Your task to perform on an android device: What is the news today? Image 0: 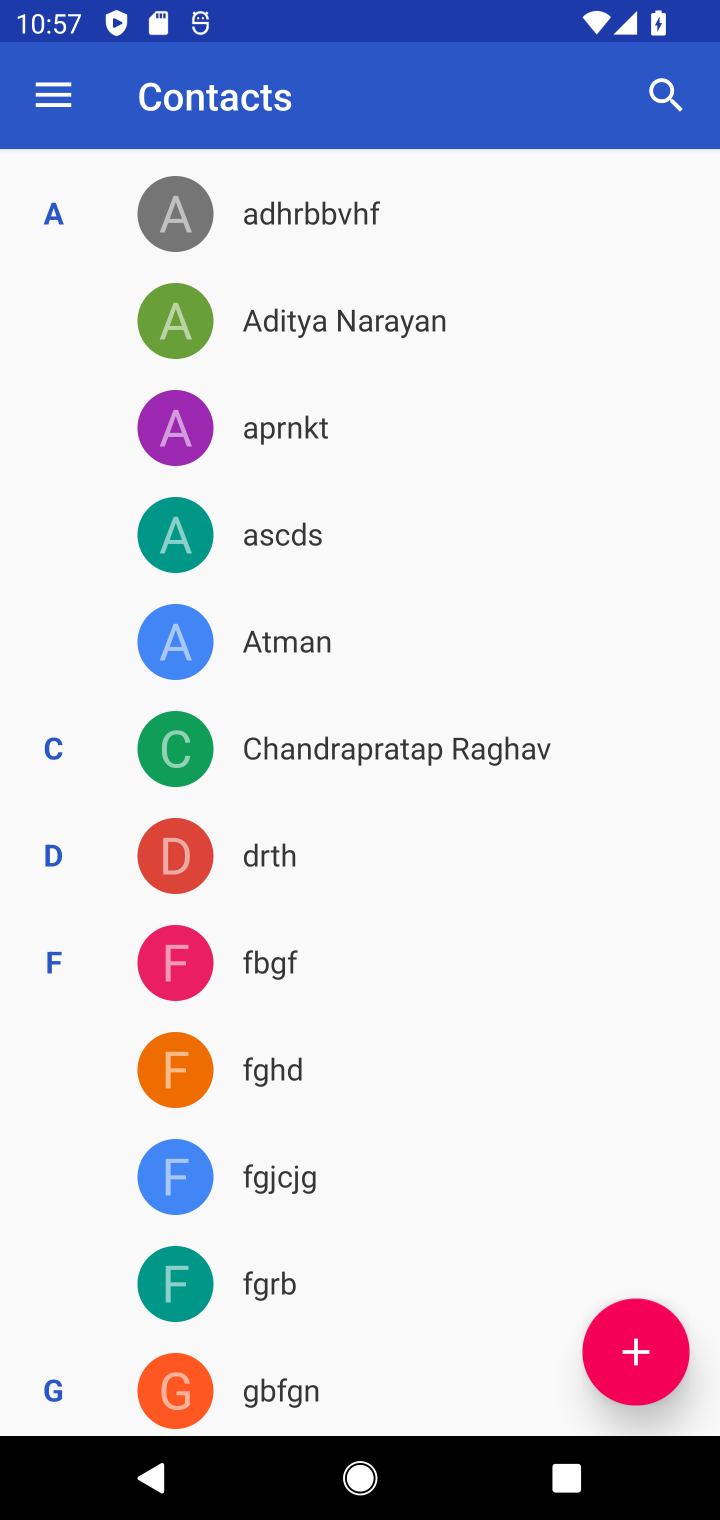
Step 0: press home button
Your task to perform on an android device: What is the news today? Image 1: 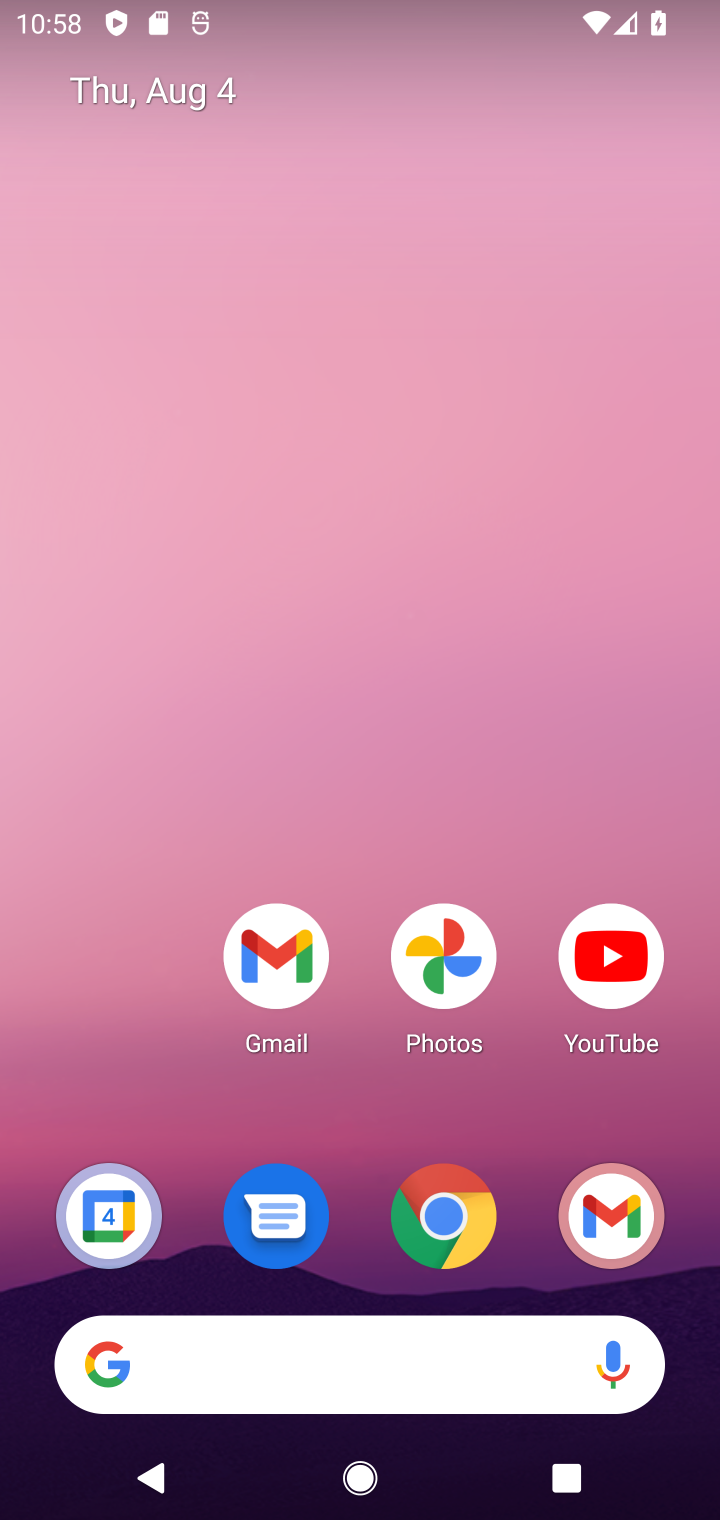
Step 1: click (469, 1355)
Your task to perform on an android device: What is the news today? Image 2: 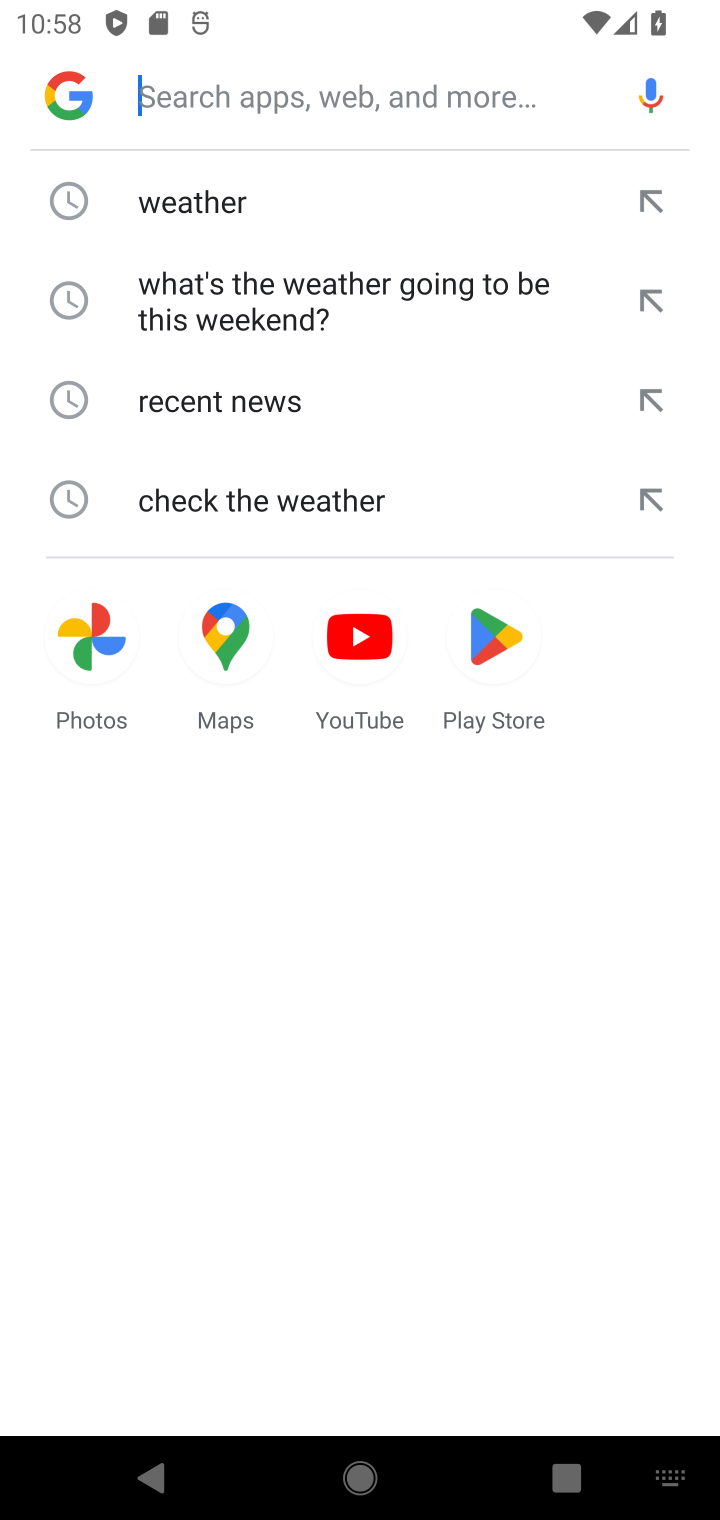
Step 2: click (266, 399)
Your task to perform on an android device: What is the news today? Image 3: 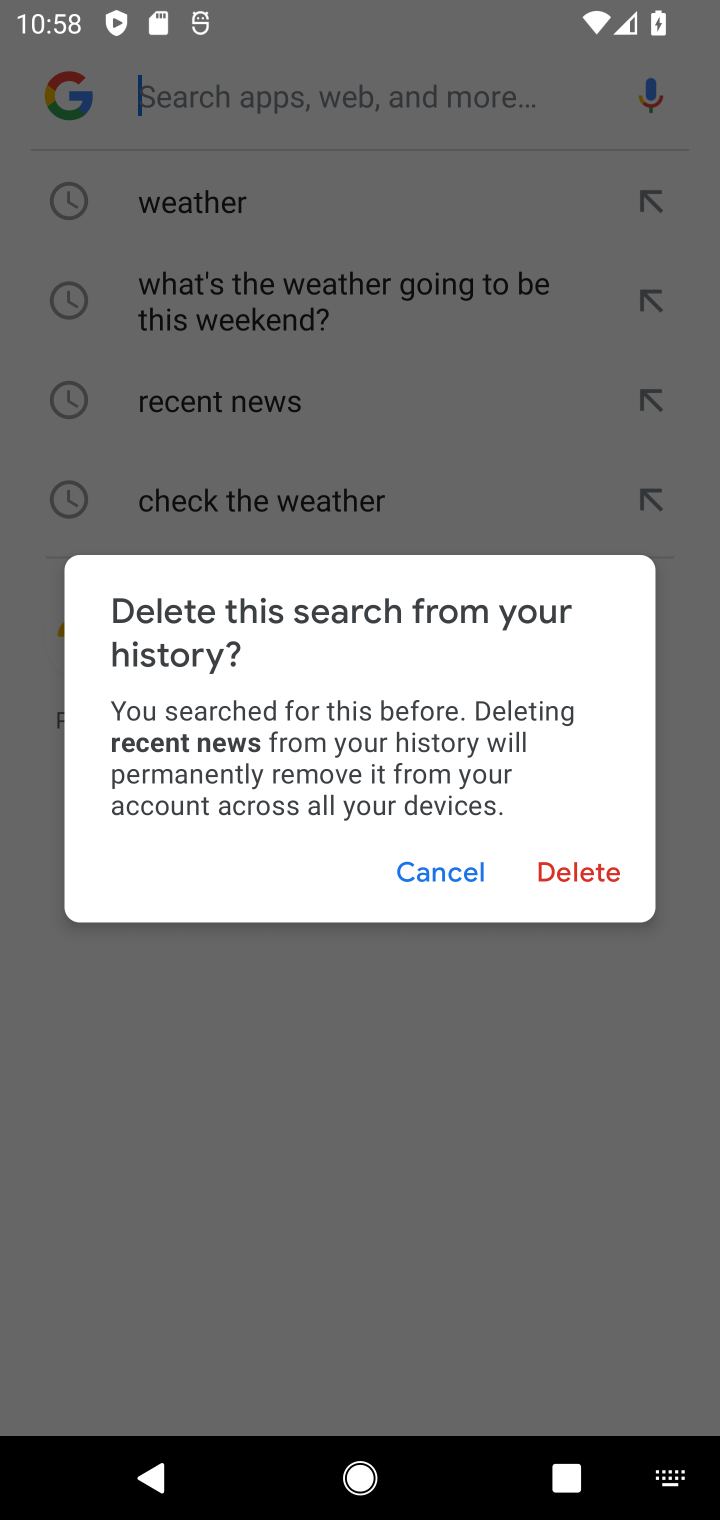
Step 3: click (446, 864)
Your task to perform on an android device: What is the news today? Image 4: 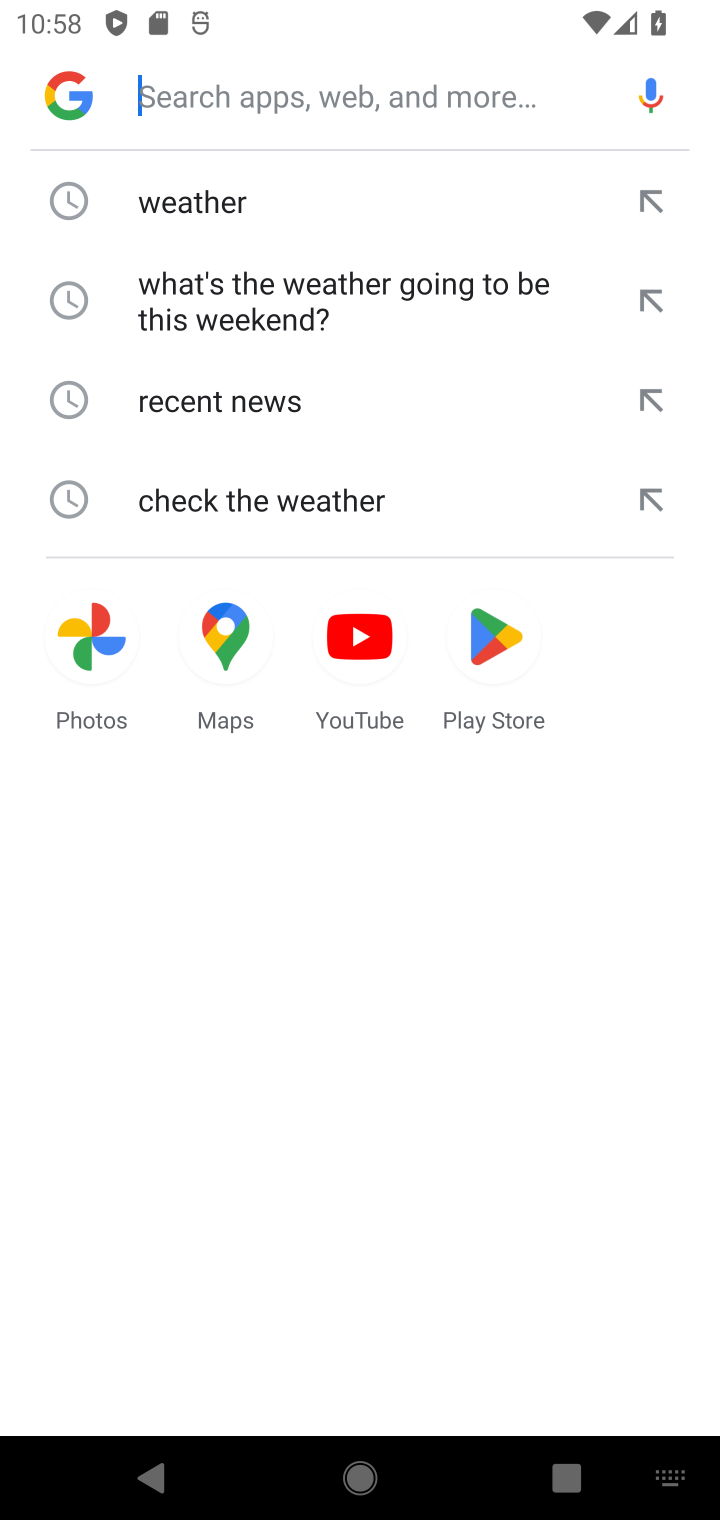
Step 4: click (383, 397)
Your task to perform on an android device: What is the news today? Image 5: 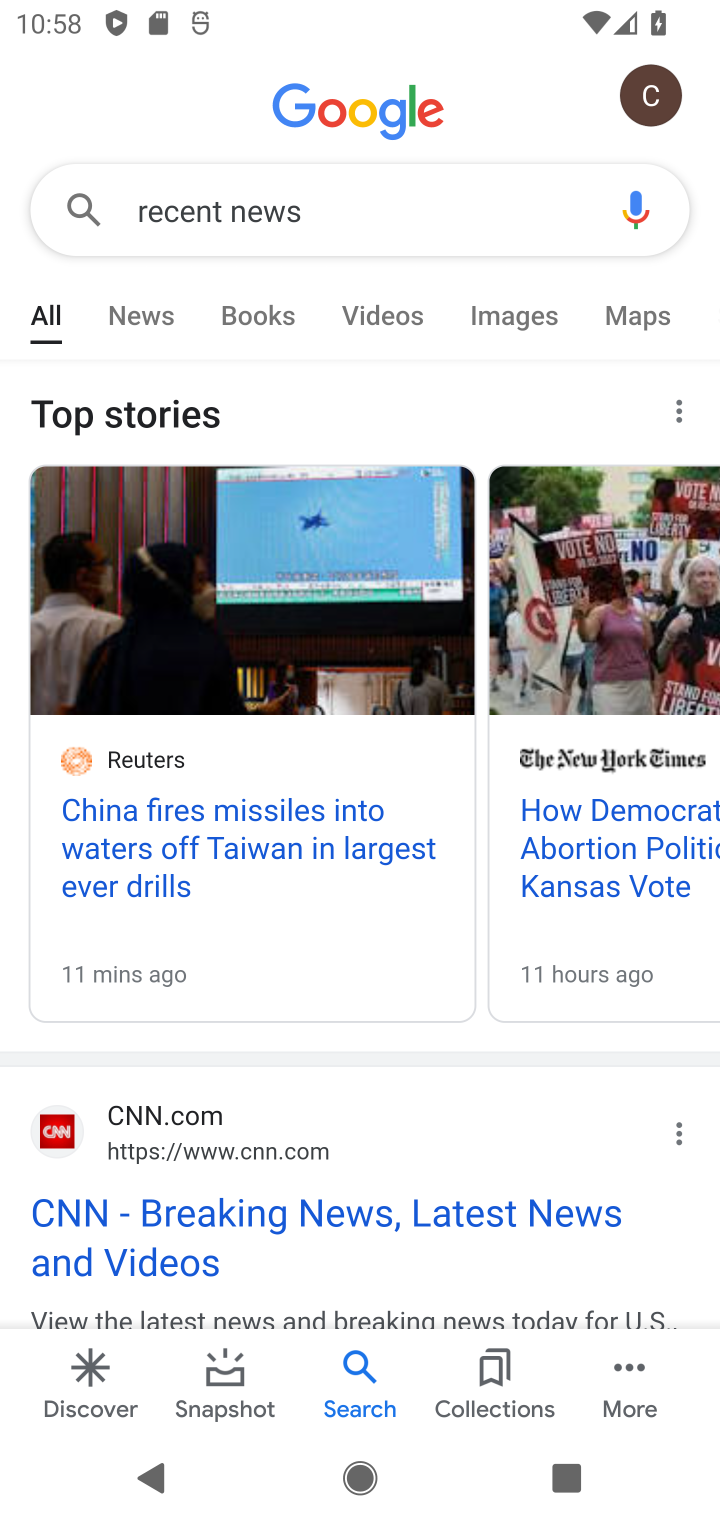
Step 5: click (147, 305)
Your task to perform on an android device: What is the news today? Image 6: 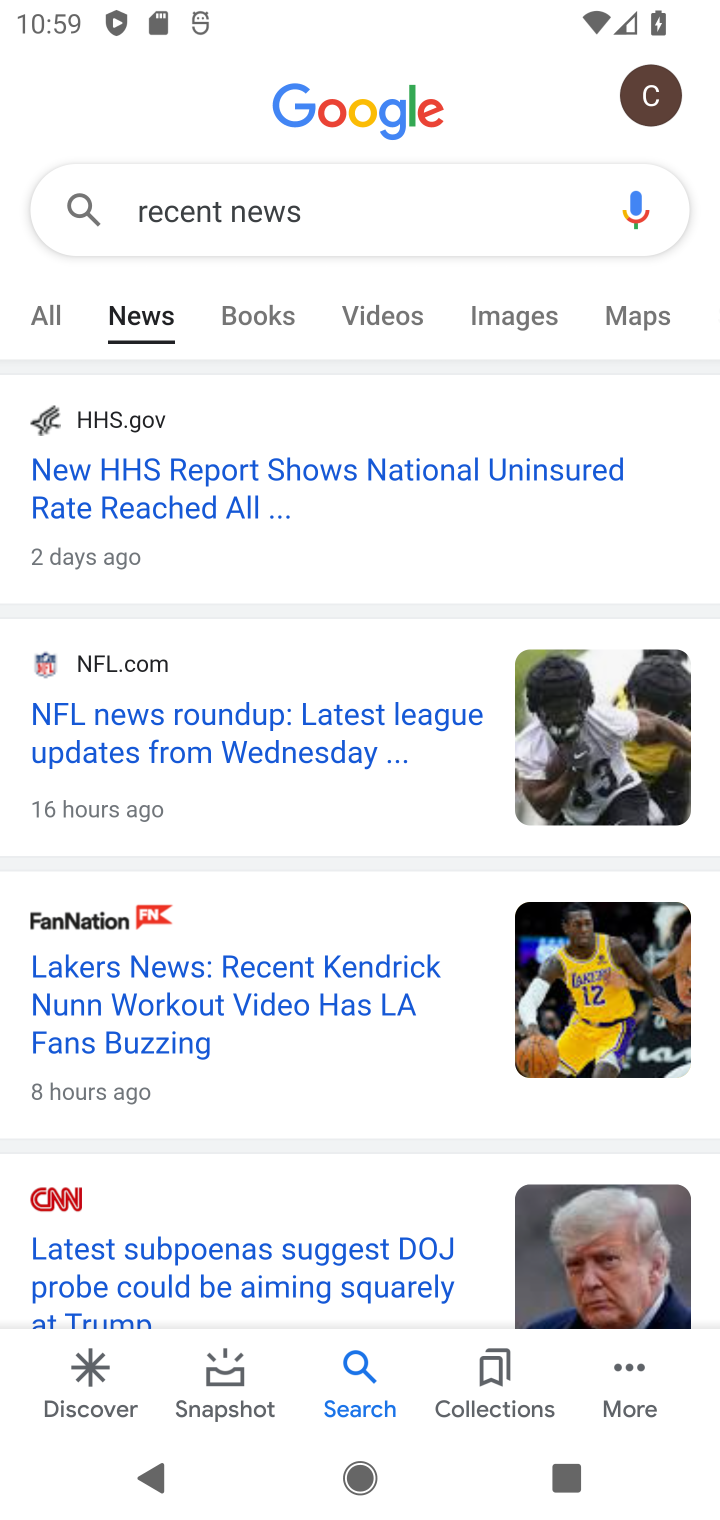
Step 6: task complete